Your task to perform on an android device: open app "Viber Messenger" (install if not already installed) Image 0: 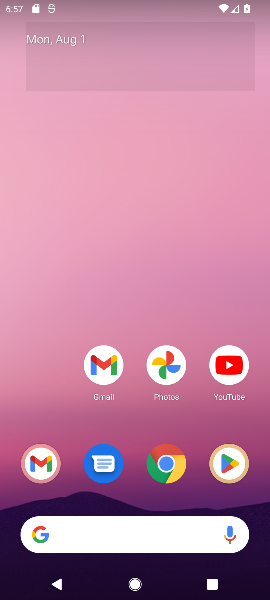
Step 0: click (225, 472)
Your task to perform on an android device: open app "Viber Messenger" (install if not already installed) Image 1: 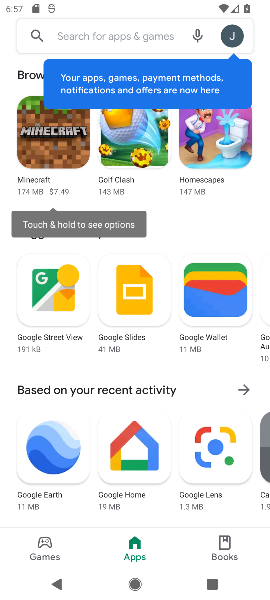
Step 1: click (168, 32)
Your task to perform on an android device: open app "Viber Messenger" (install if not already installed) Image 2: 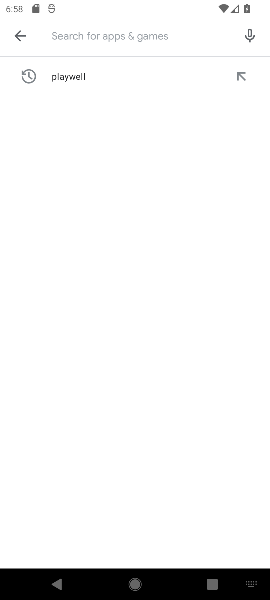
Step 2: type "viber"
Your task to perform on an android device: open app "Viber Messenger" (install if not already installed) Image 3: 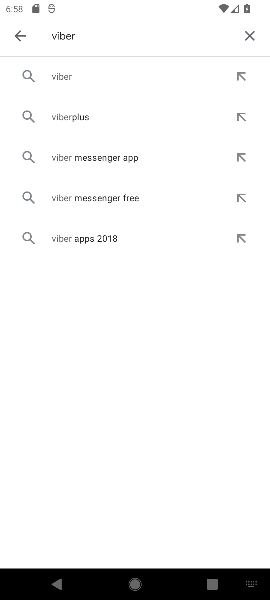
Step 3: click (74, 69)
Your task to perform on an android device: open app "Viber Messenger" (install if not already installed) Image 4: 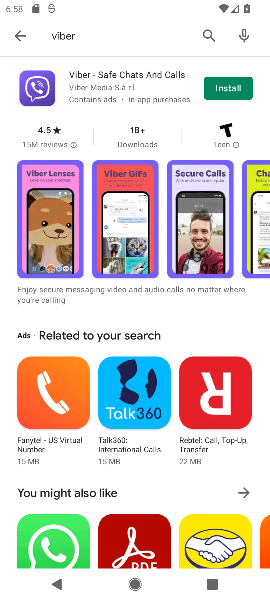
Step 4: click (226, 91)
Your task to perform on an android device: open app "Viber Messenger" (install if not already installed) Image 5: 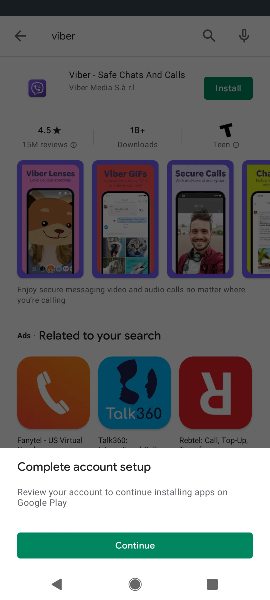
Step 5: task complete